Your task to perform on an android device: Go to settings Image 0: 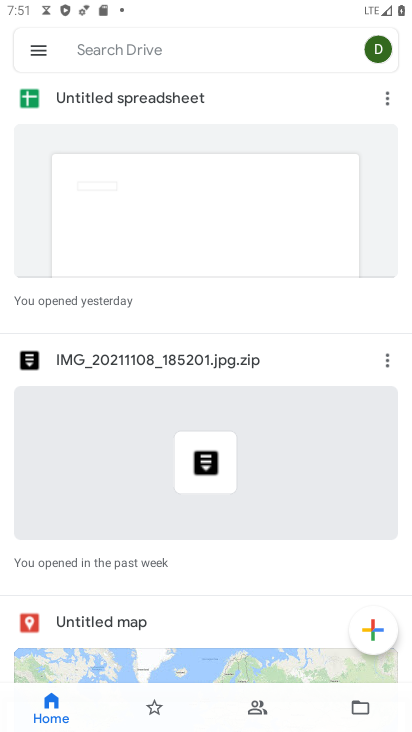
Step 0: press home button
Your task to perform on an android device: Go to settings Image 1: 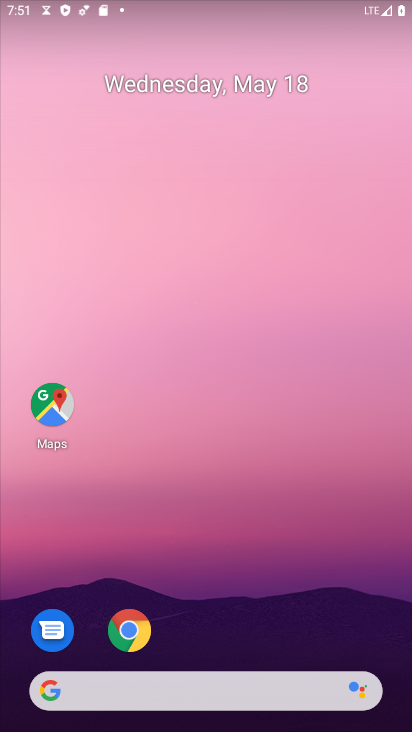
Step 1: drag from (271, 419) to (299, 30)
Your task to perform on an android device: Go to settings Image 2: 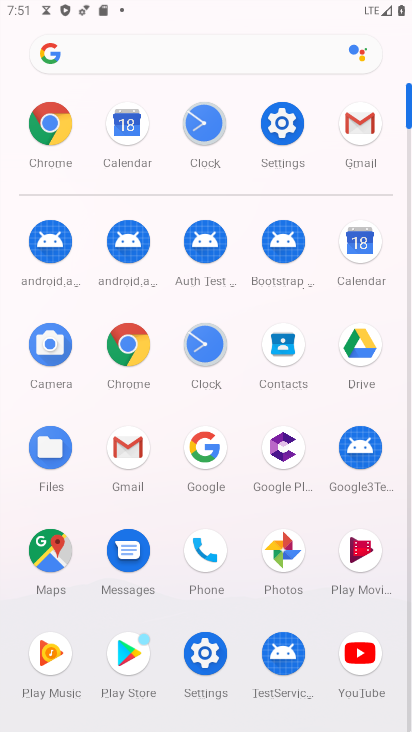
Step 2: click (294, 110)
Your task to perform on an android device: Go to settings Image 3: 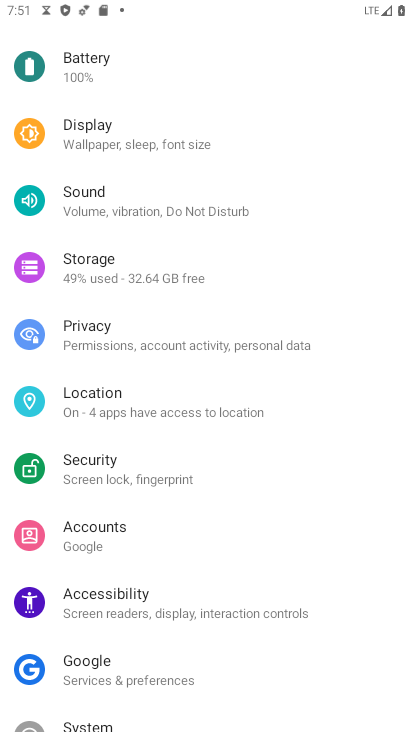
Step 3: task complete